Your task to perform on an android device: Open location settings Image 0: 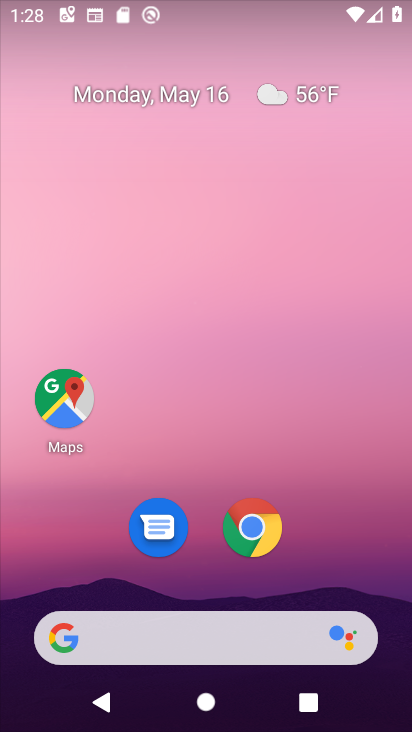
Step 0: drag from (210, 664) to (140, 71)
Your task to perform on an android device: Open location settings Image 1: 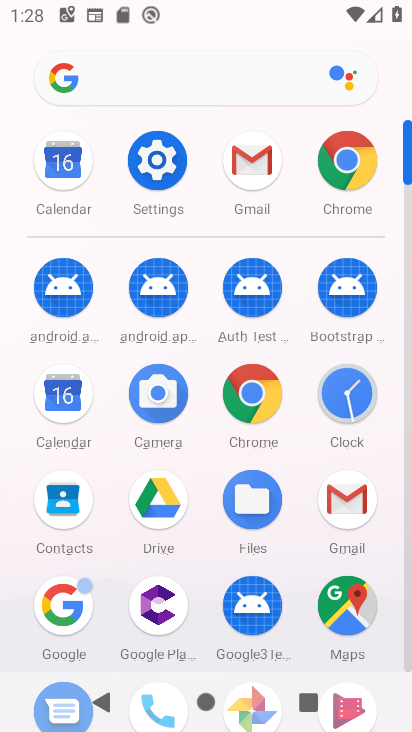
Step 1: click (160, 165)
Your task to perform on an android device: Open location settings Image 2: 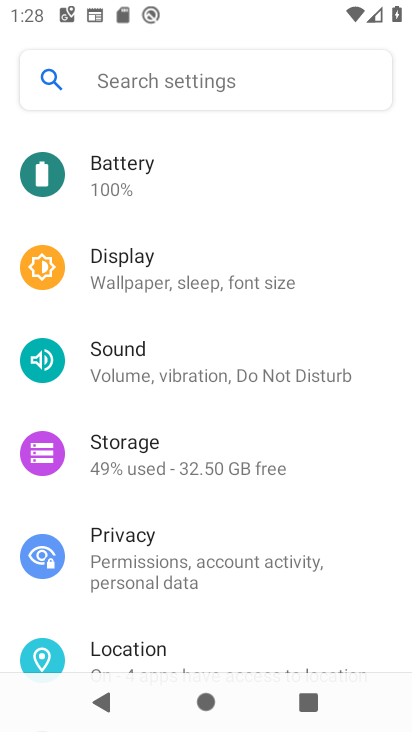
Step 2: click (138, 643)
Your task to perform on an android device: Open location settings Image 3: 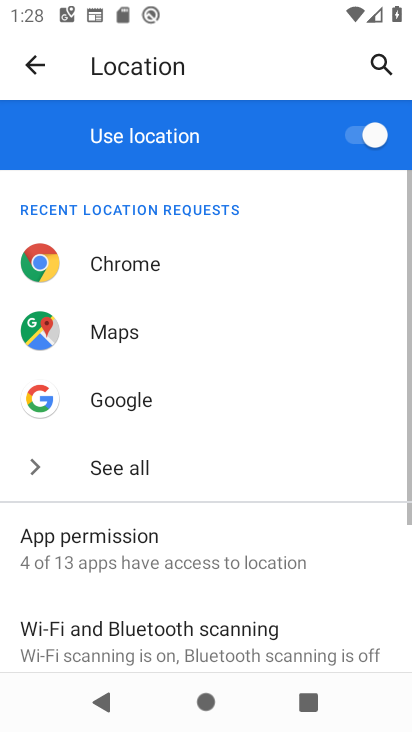
Step 3: task complete